Your task to perform on an android device: Is it going to rain this weekend? Image 0: 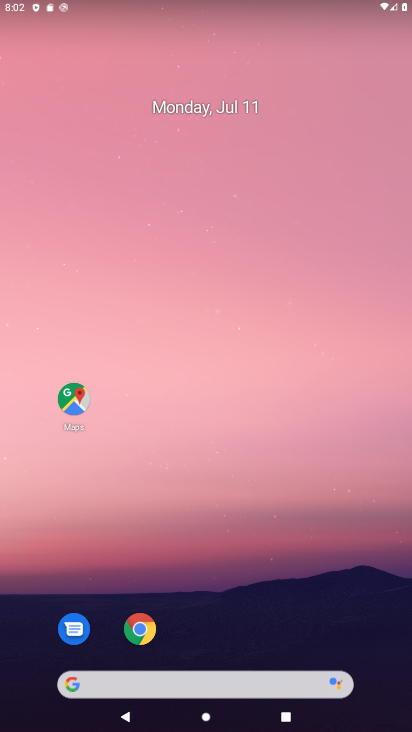
Step 0: drag from (133, 676) to (216, 99)
Your task to perform on an android device: Is it going to rain this weekend? Image 1: 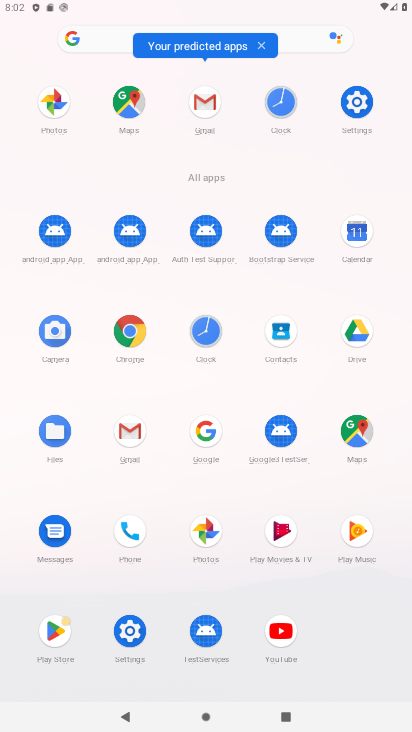
Step 1: click (208, 458)
Your task to perform on an android device: Is it going to rain this weekend? Image 2: 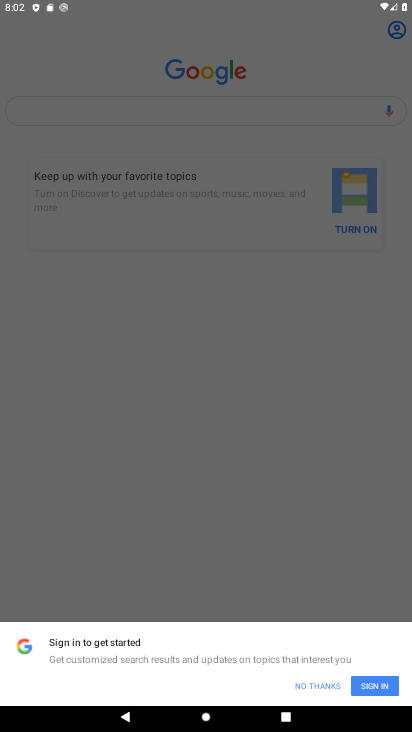
Step 2: click (318, 680)
Your task to perform on an android device: Is it going to rain this weekend? Image 3: 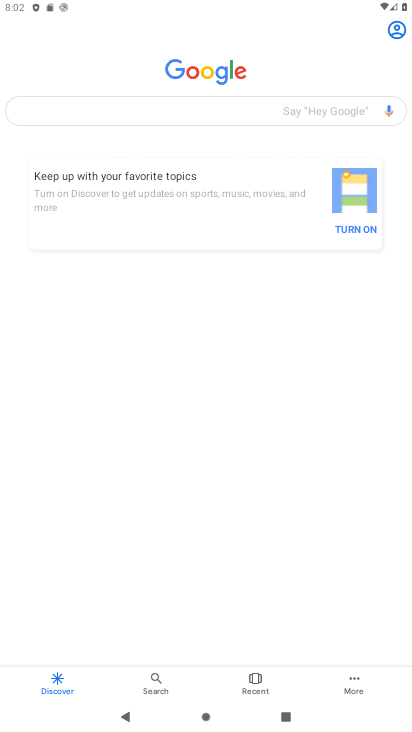
Step 3: click (225, 109)
Your task to perform on an android device: Is it going to rain this weekend? Image 4: 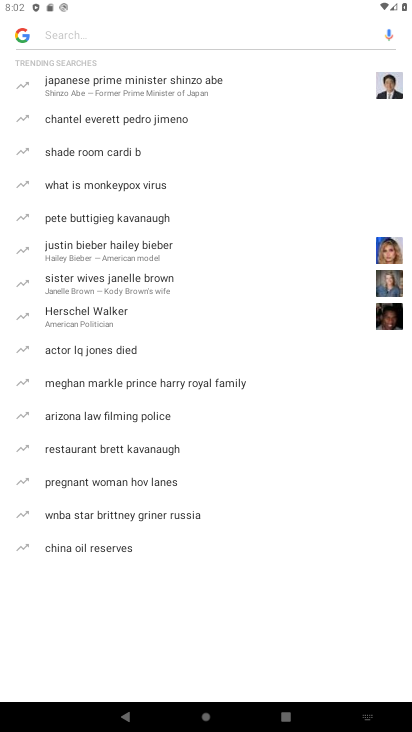
Step 4: type "Is it going to rain this weekend?"
Your task to perform on an android device: Is it going to rain this weekend? Image 5: 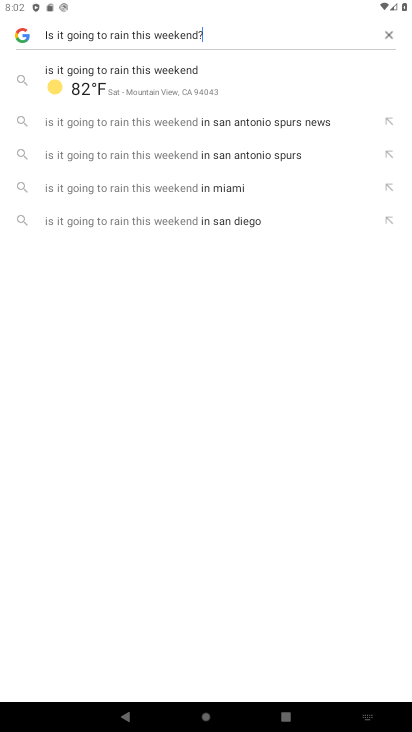
Step 5: type ""
Your task to perform on an android device: Is it going to rain this weekend? Image 6: 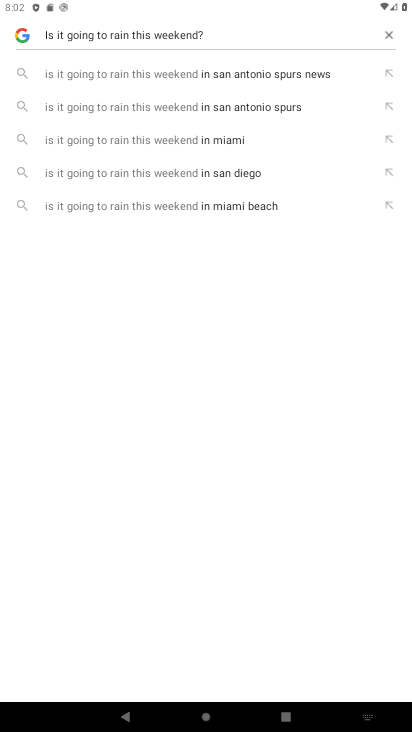
Step 6: click (257, 31)
Your task to perform on an android device: Is it going to rain this weekend? Image 7: 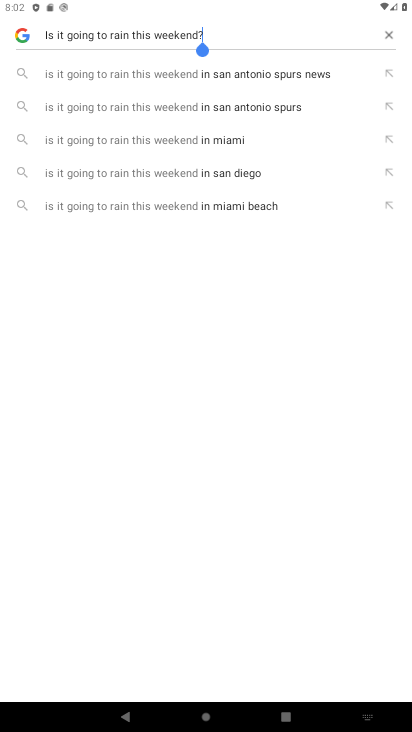
Step 7: press enter
Your task to perform on an android device: Is it going to rain this weekend? Image 8: 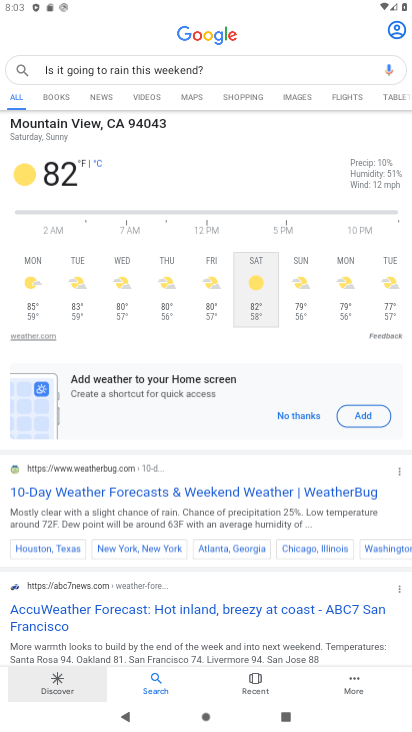
Step 8: task complete